Your task to perform on an android device: open chrome and create a bookmark for the current page Image 0: 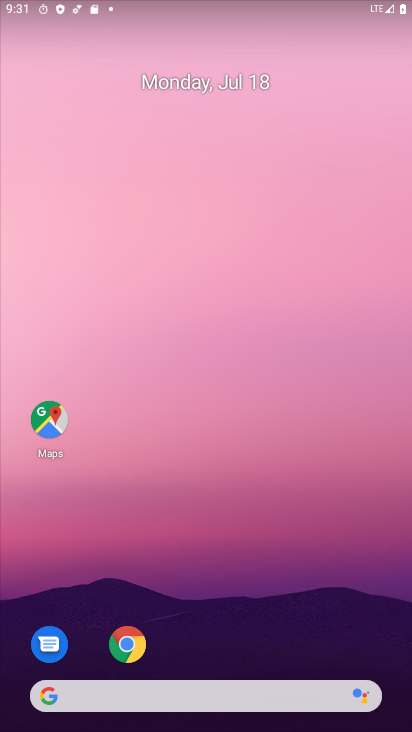
Step 0: press home button
Your task to perform on an android device: open chrome and create a bookmark for the current page Image 1: 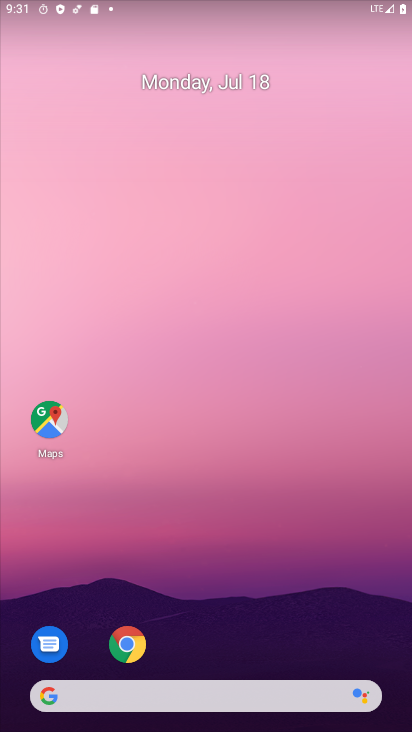
Step 1: click (124, 639)
Your task to perform on an android device: open chrome and create a bookmark for the current page Image 2: 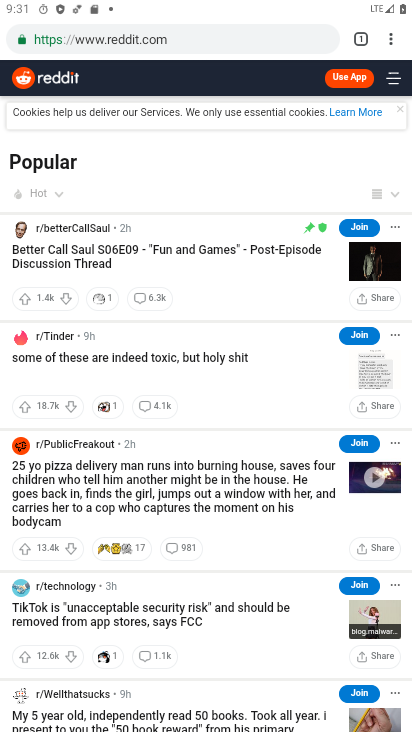
Step 2: click (360, 35)
Your task to perform on an android device: open chrome and create a bookmark for the current page Image 3: 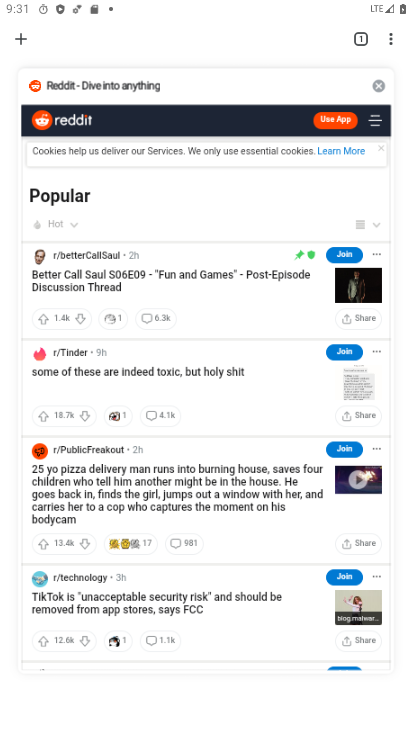
Step 3: click (23, 36)
Your task to perform on an android device: open chrome and create a bookmark for the current page Image 4: 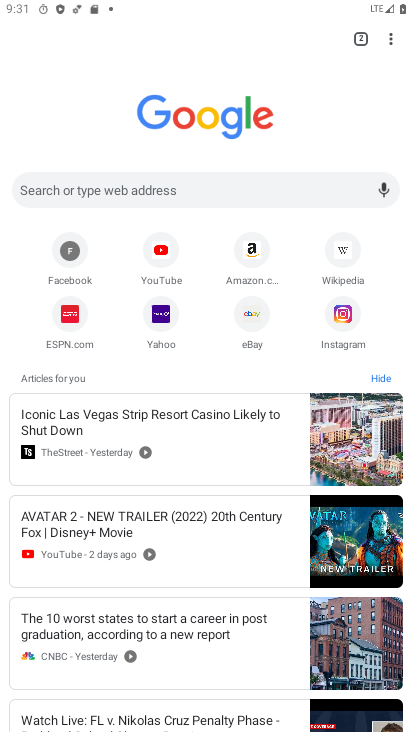
Step 4: click (389, 36)
Your task to perform on an android device: open chrome and create a bookmark for the current page Image 5: 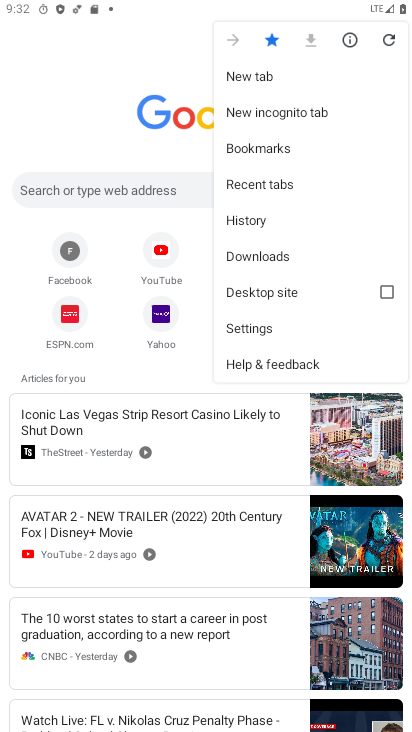
Step 5: click (294, 143)
Your task to perform on an android device: open chrome and create a bookmark for the current page Image 6: 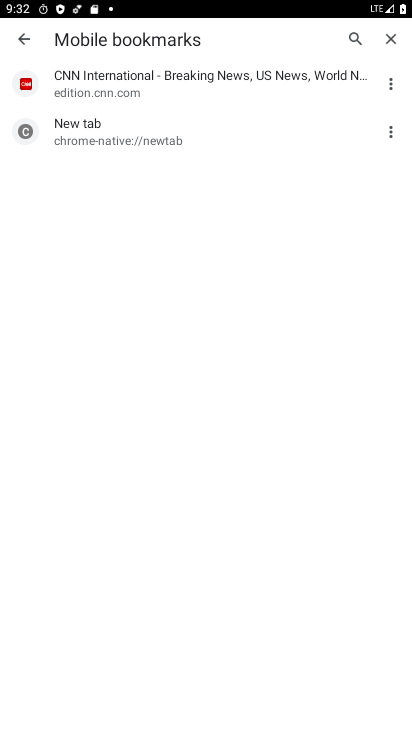
Step 6: task complete